Your task to perform on an android device: What's the weather? Image 0: 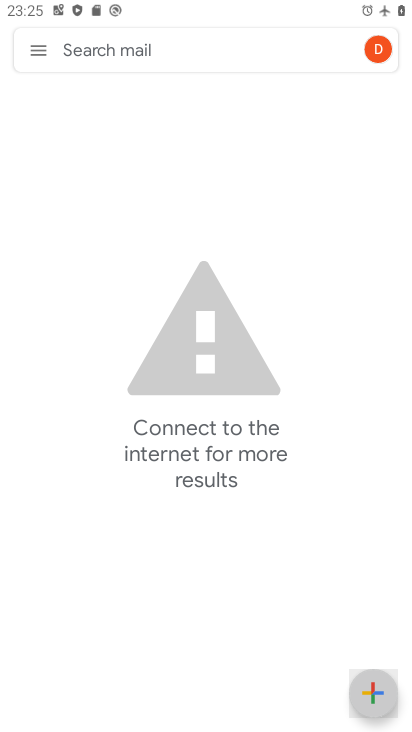
Step 0: press home button
Your task to perform on an android device: What's the weather? Image 1: 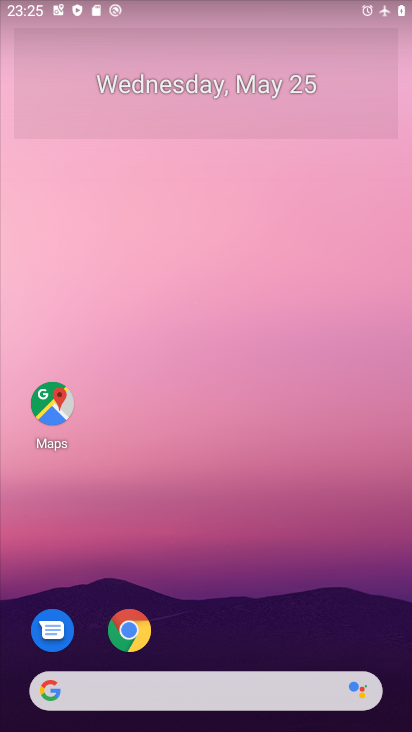
Step 1: drag from (236, 620) to (257, 224)
Your task to perform on an android device: What's the weather? Image 2: 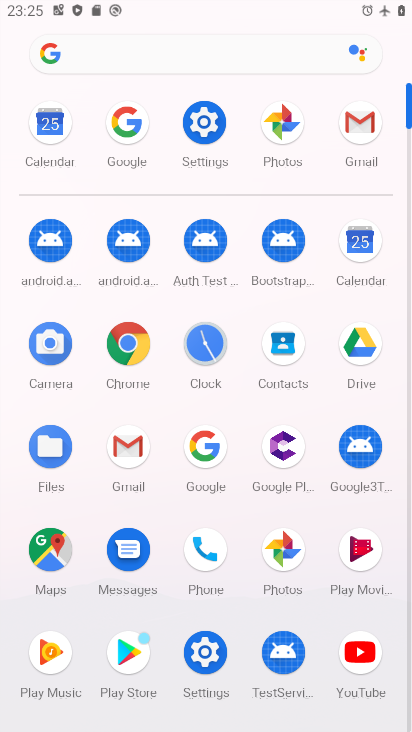
Step 2: click (40, 128)
Your task to perform on an android device: What's the weather? Image 3: 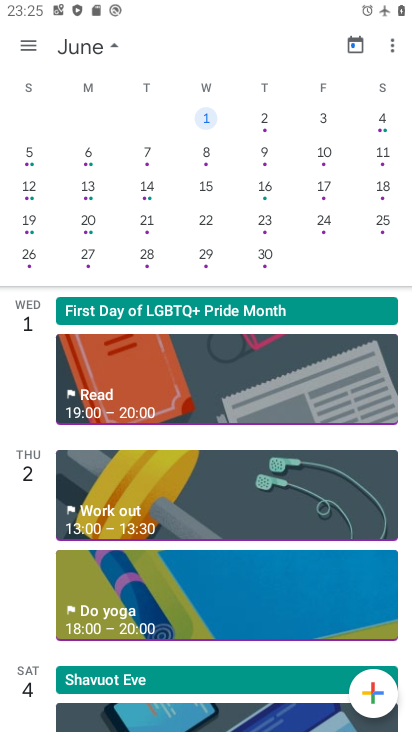
Step 3: press home button
Your task to perform on an android device: What's the weather? Image 4: 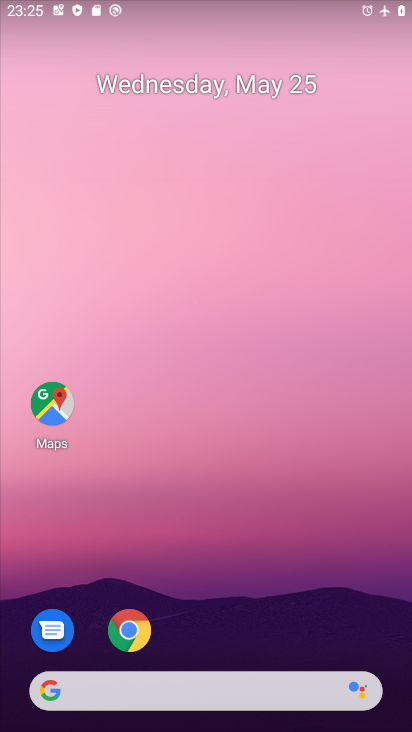
Step 4: drag from (218, 626) to (220, 198)
Your task to perform on an android device: What's the weather? Image 5: 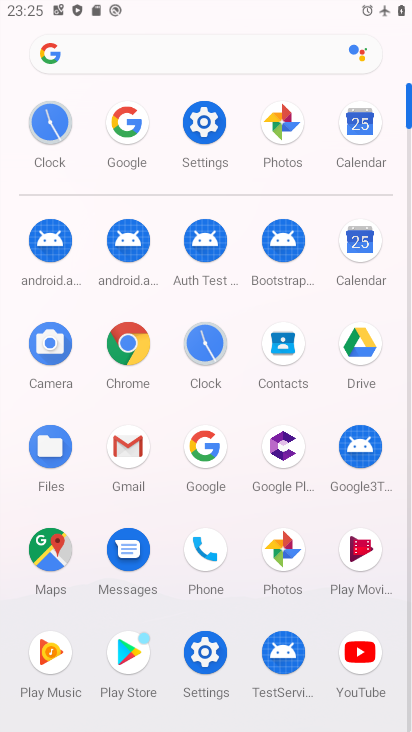
Step 5: click (214, 443)
Your task to perform on an android device: What's the weather? Image 6: 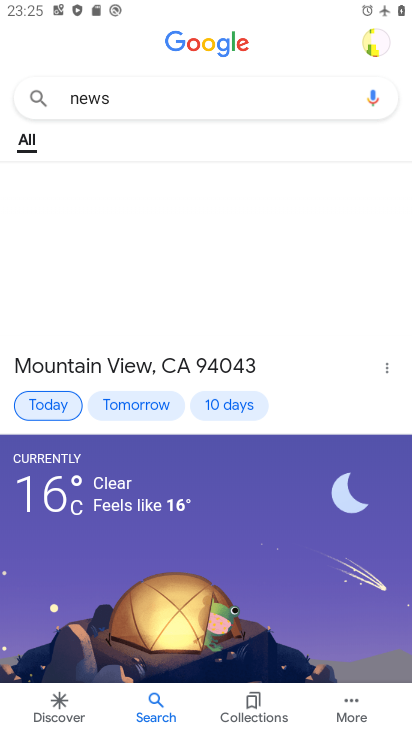
Step 6: task complete